Your task to perform on an android device: check the backup settings in the google photos Image 0: 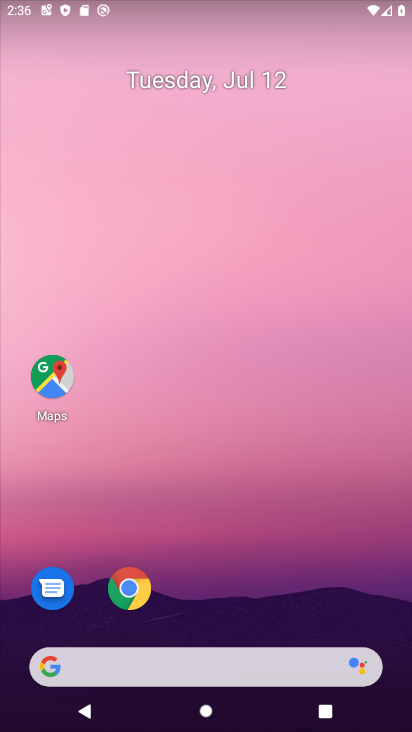
Step 0: drag from (220, 653) to (150, 238)
Your task to perform on an android device: check the backup settings in the google photos Image 1: 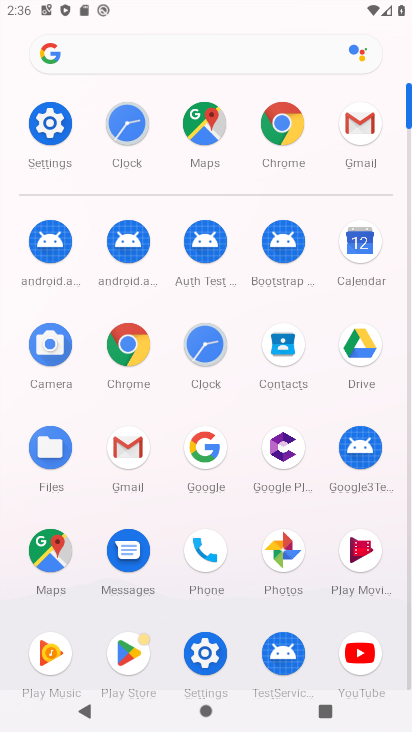
Step 1: click (288, 550)
Your task to perform on an android device: check the backup settings in the google photos Image 2: 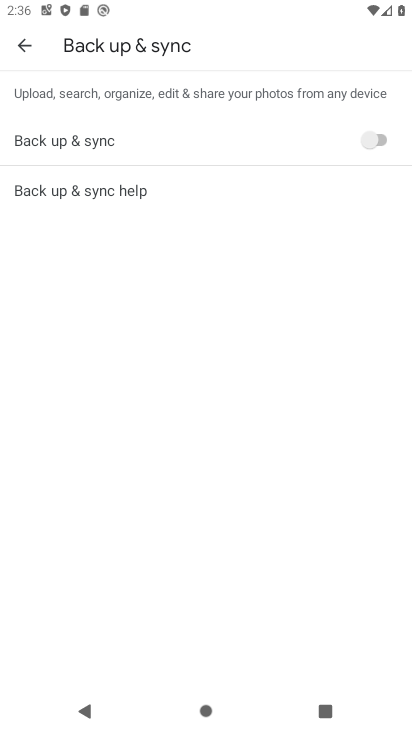
Step 2: click (99, 151)
Your task to perform on an android device: check the backup settings in the google photos Image 3: 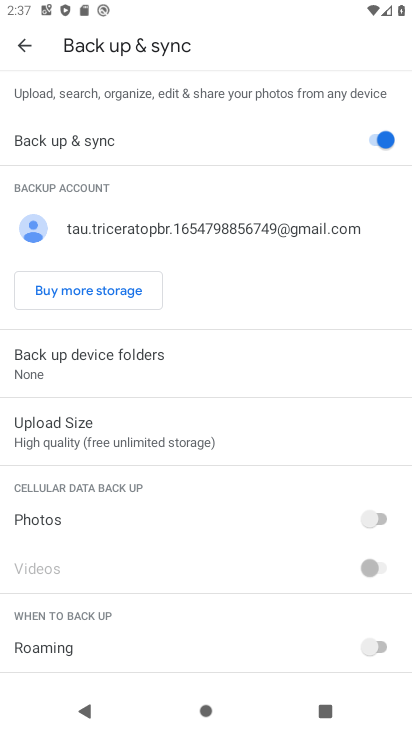
Step 3: task complete